Your task to perform on an android device: open device folders in google photos Image 0: 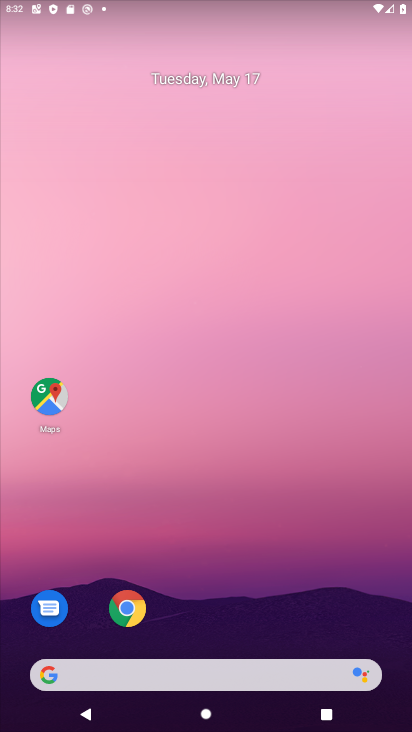
Step 0: drag from (217, 628) to (202, 337)
Your task to perform on an android device: open device folders in google photos Image 1: 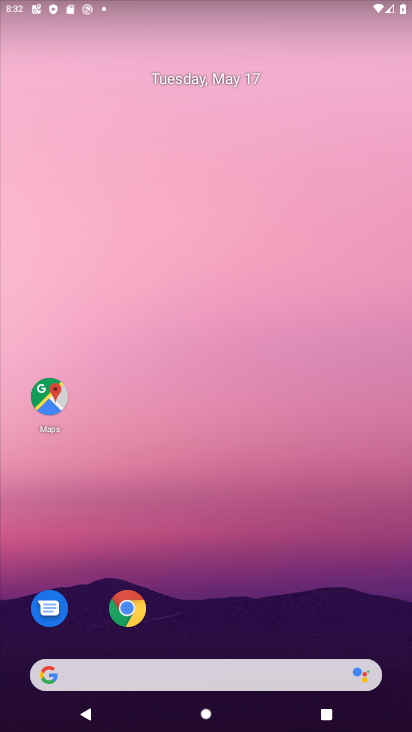
Step 1: drag from (308, 616) to (288, 71)
Your task to perform on an android device: open device folders in google photos Image 2: 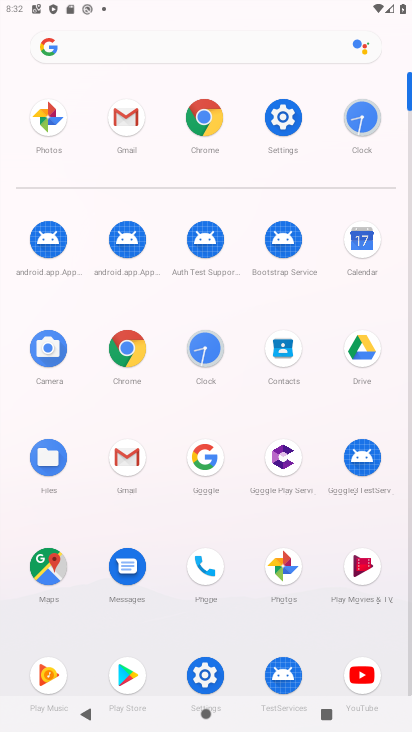
Step 2: click (40, 122)
Your task to perform on an android device: open device folders in google photos Image 3: 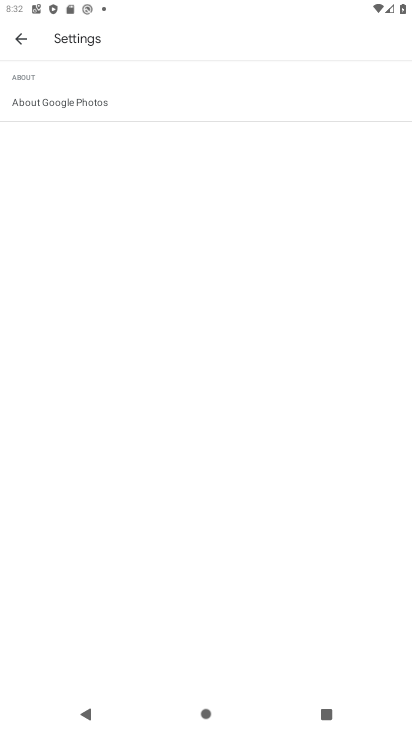
Step 3: click (24, 44)
Your task to perform on an android device: open device folders in google photos Image 4: 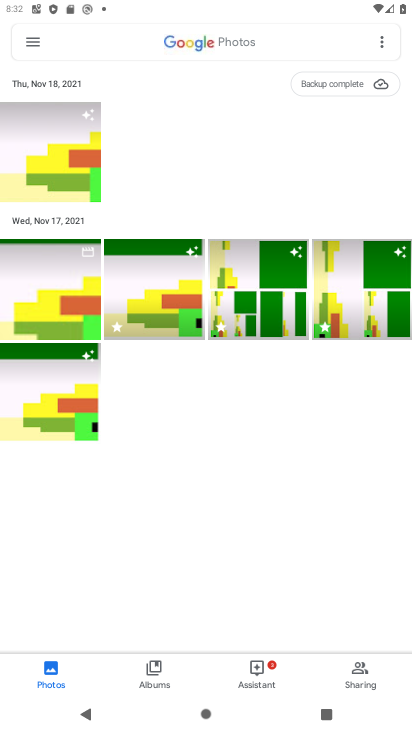
Step 4: click (24, 44)
Your task to perform on an android device: open device folders in google photos Image 5: 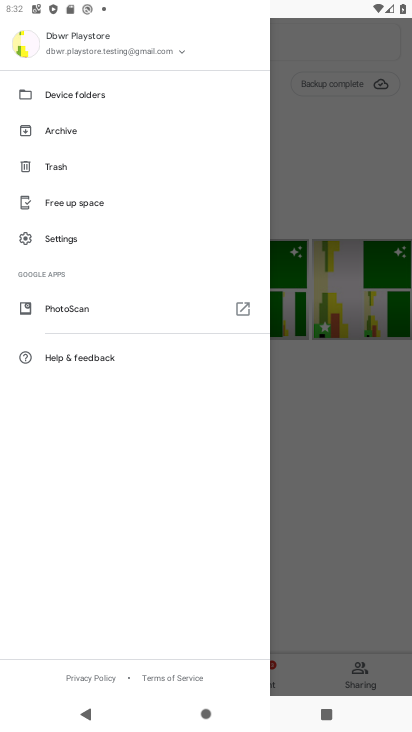
Step 5: click (126, 94)
Your task to perform on an android device: open device folders in google photos Image 6: 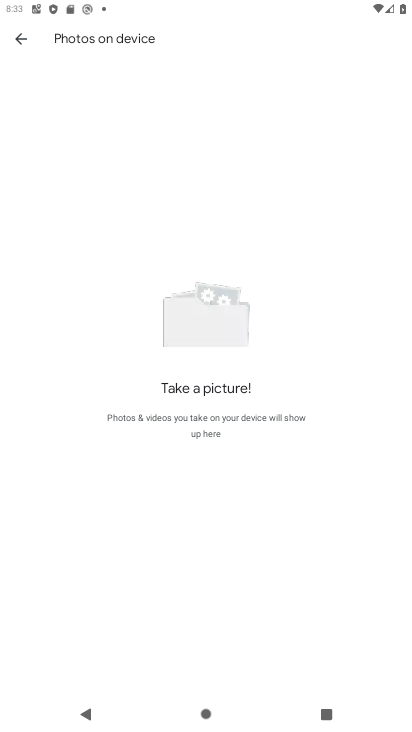
Step 6: task complete